Your task to perform on an android device: add a contact Image 0: 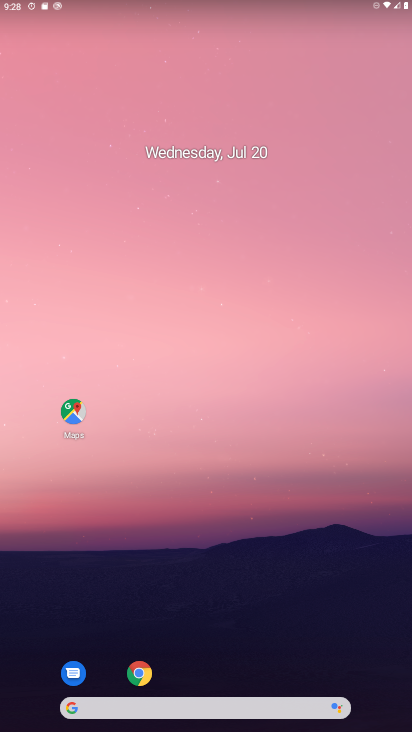
Step 0: drag from (337, 633) to (137, 42)
Your task to perform on an android device: add a contact Image 1: 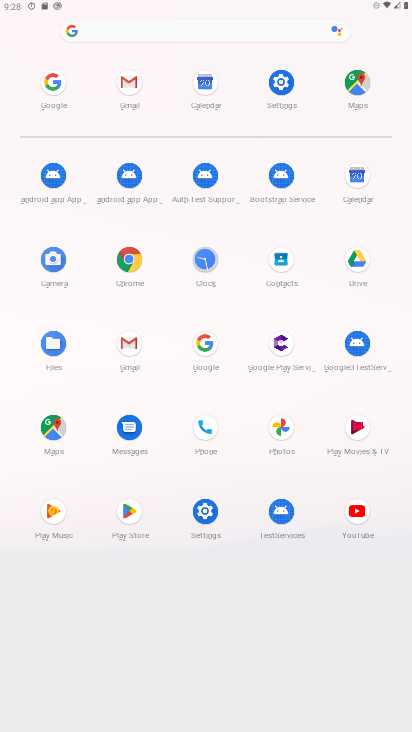
Step 1: click (278, 268)
Your task to perform on an android device: add a contact Image 2: 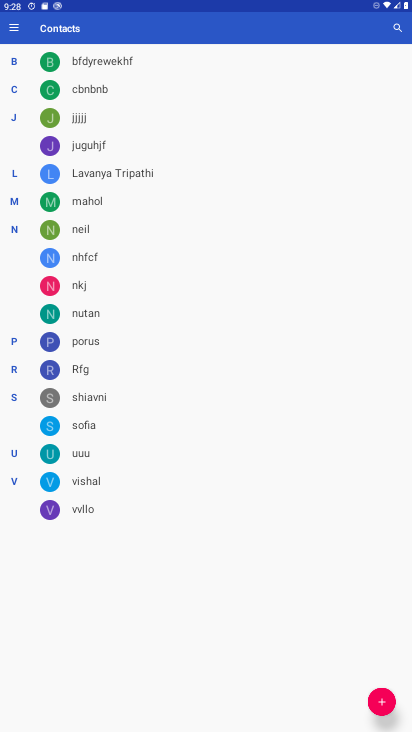
Step 2: click (382, 710)
Your task to perform on an android device: add a contact Image 3: 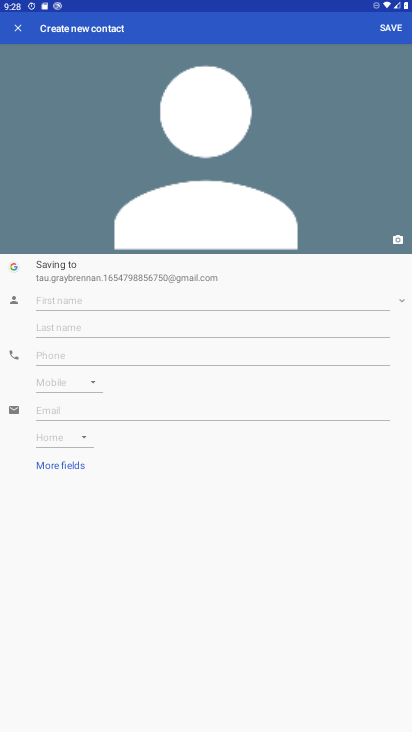
Step 3: click (71, 296)
Your task to perform on an android device: add a contact Image 4: 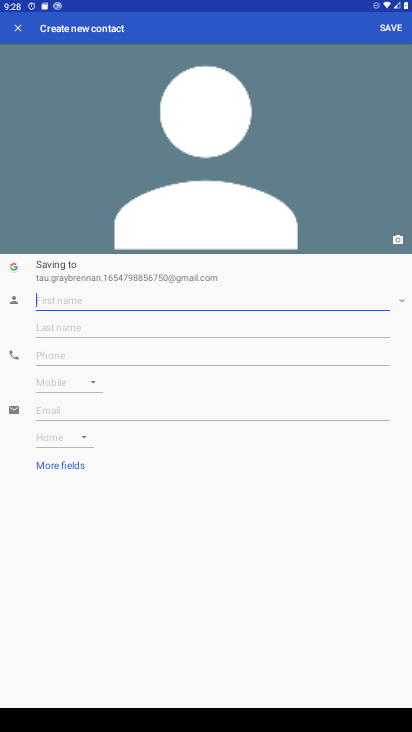
Step 4: type "aslam"
Your task to perform on an android device: add a contact Image 5: 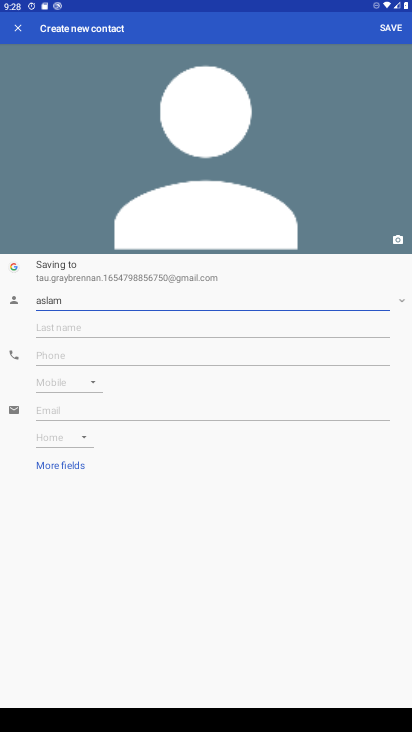
Step 5: click (388, 30)
Your task to perform on an android device: add a contact Image 6: 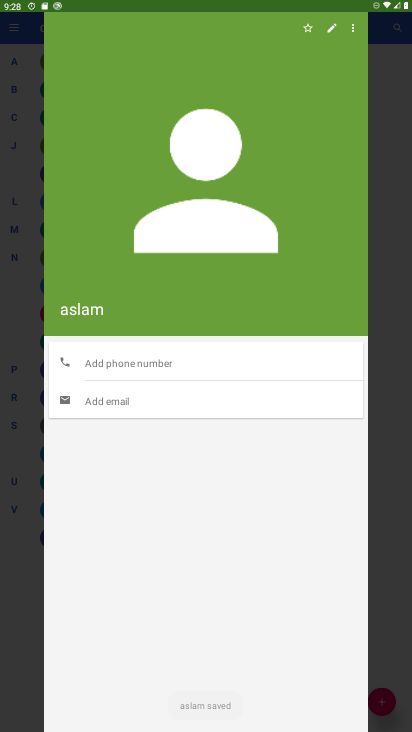
Step 6: task complete